Your task to perform on an android device: Search for pizza restaurants on Maps Image 0: 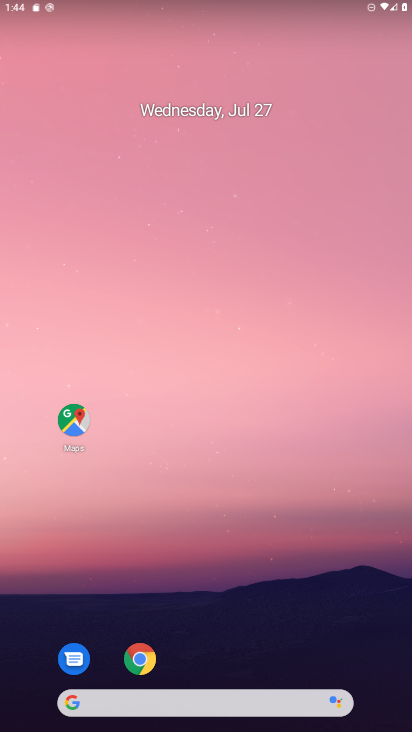
Step 0: drag from (331, 574) to (282, 51)
Your task to perform on an android device: Search for pizza restaurants on Maps Image 1: 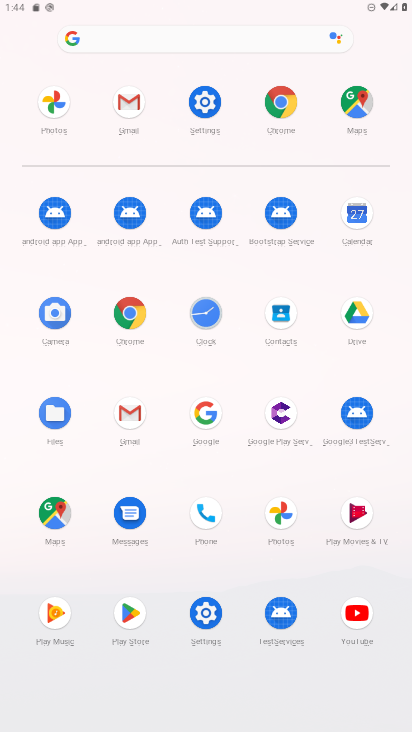
Step 1: click (359, 94)
Your task to perform on an android device: Search for pizza restaurants on Maps Image 2: 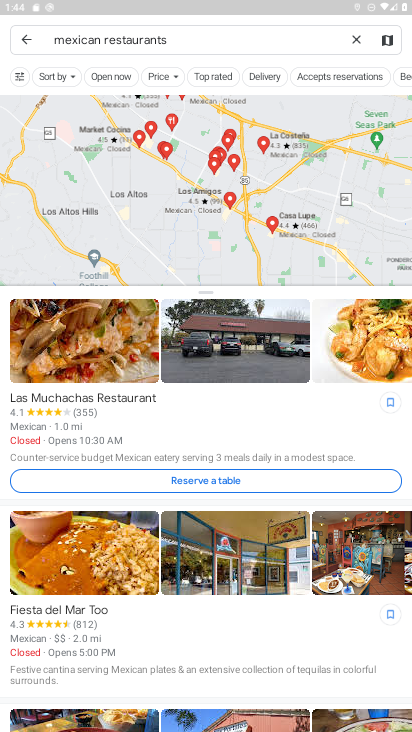
Step 2: click (357, 34)
Your task to perform on an android device: Search for pizza restaurants on Maps Image 3: 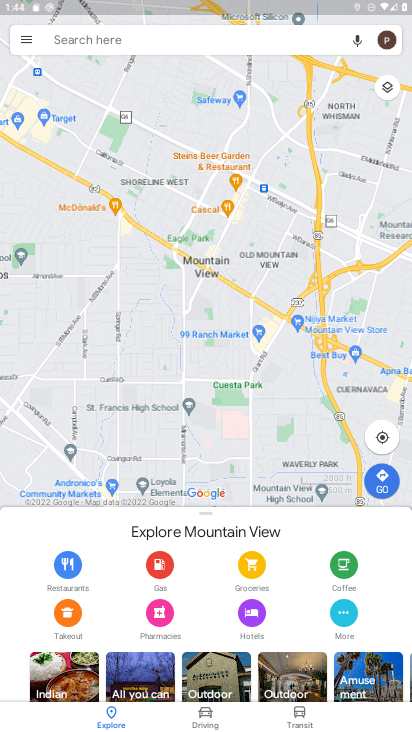
Step 3: click (302, 40)
Your task to perform on an android device: Search for pizza restaurants on Maps Image 4: 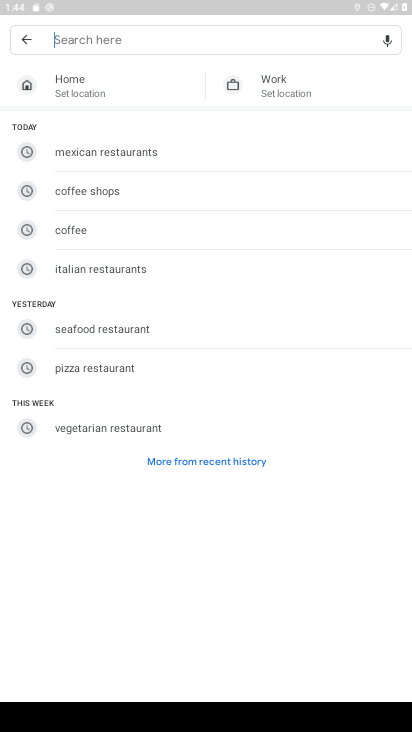
Step 4: type "pizza restaurants"
Your task to perform on an android device: Search for pizza restaurants on Maps Image 5: 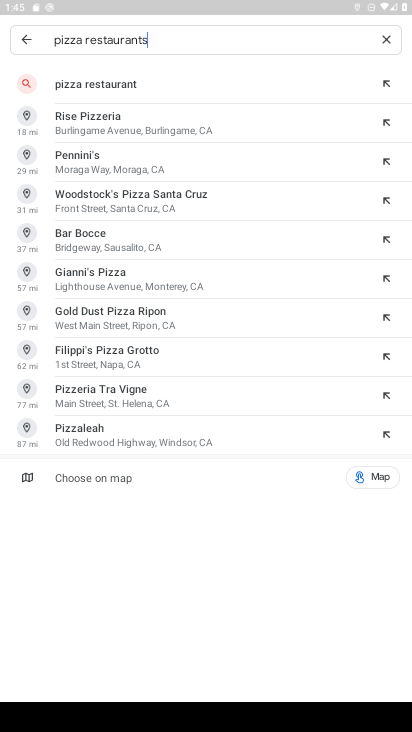
Step 5: press enter
Your task to perform on an android device: Search for pizza restaurants on Maps Image 6: 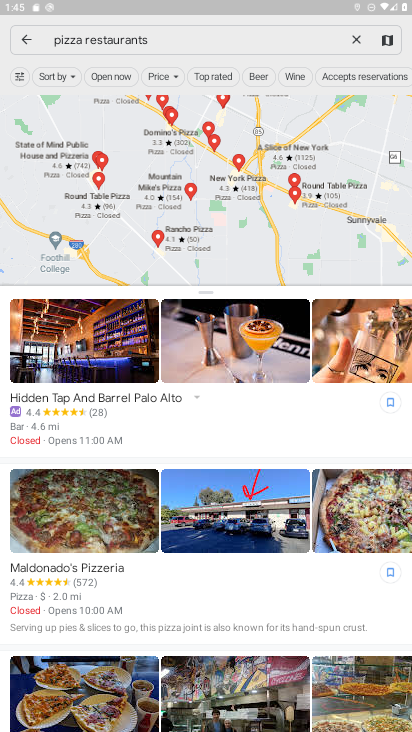
Step 6: task complete